Your task to perform on an android device: set an alarm Image 0: 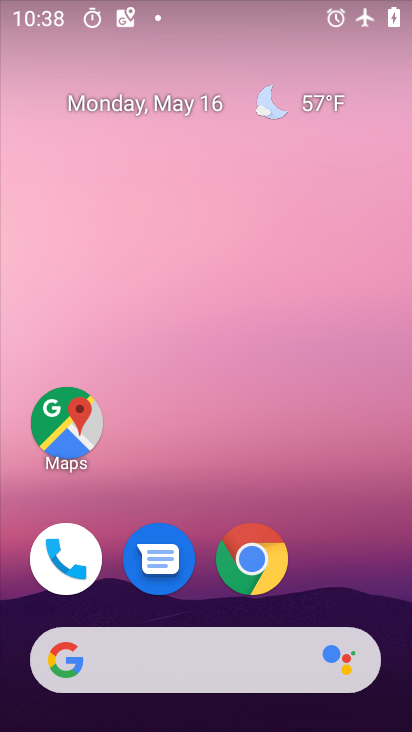
Step 0: drag from (335, 521) to (384, 131)
Your task to perform on an android device: set an alarm Image 1: 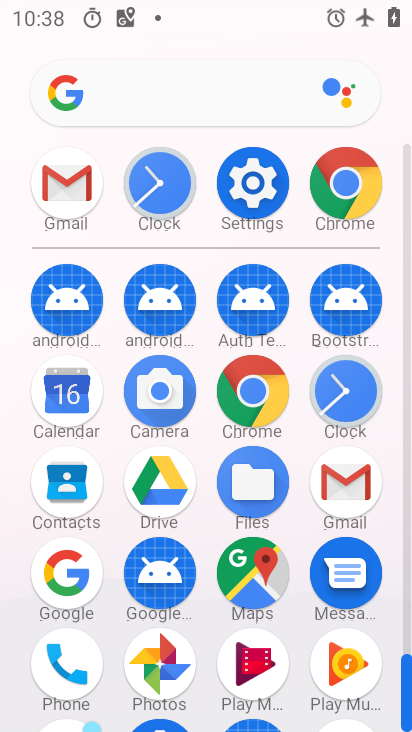
Step 1: click (345, 381)
Your task to perform on an android device: set an alarm Image 2: 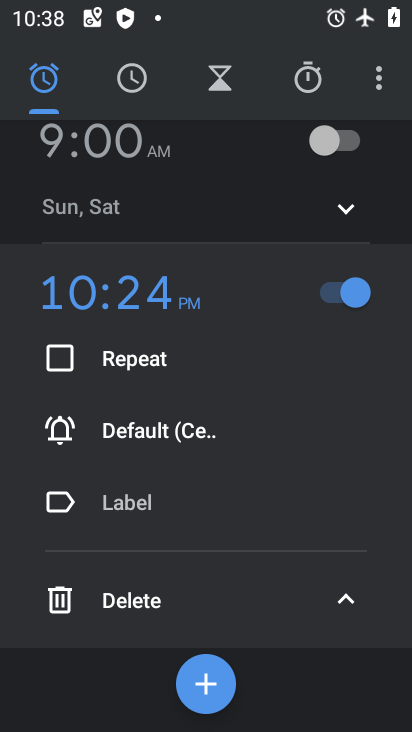
Step 2: click (50, 81)
Your task to perform on an android device: set an alarm Image 3: 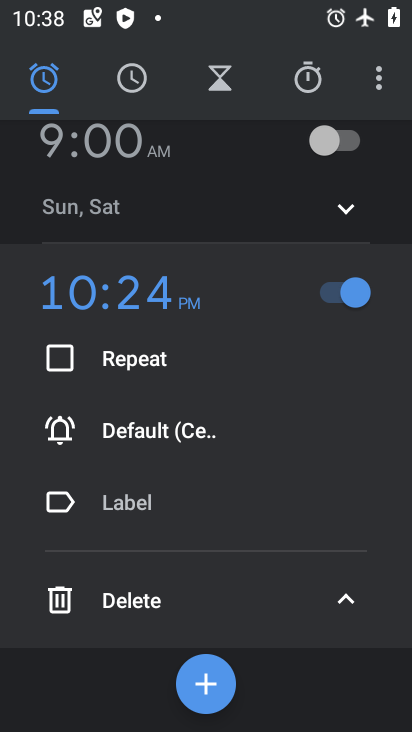
Step 3: click (218, 685)
Your task to perform on an android device: set an alarm Image 4: 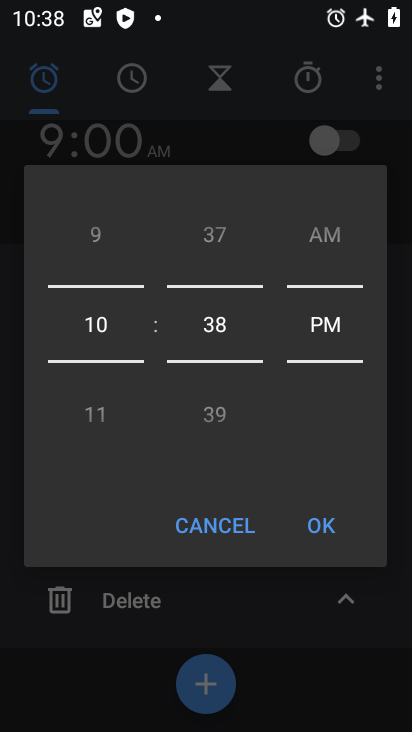
Step 4: click (341, 523)
Your task to perform on an android device: set an alarm Image 5: 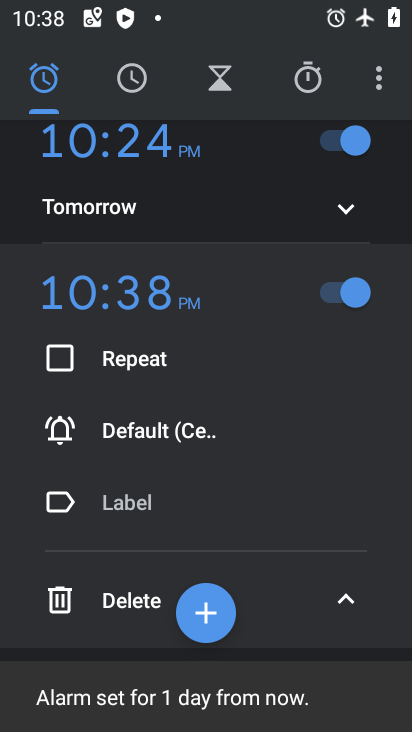
Step 5: task complete